Your task to perform on an android device: What is the recent news? Image 0: 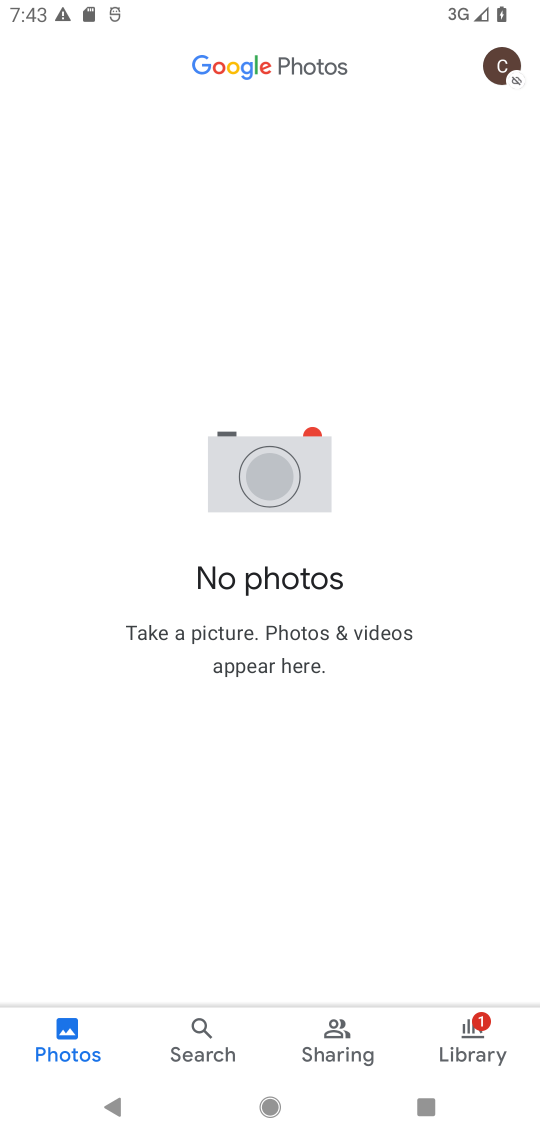
Step 0: press home button
Your task to perform on an android device: What is the recent news? Image 1: 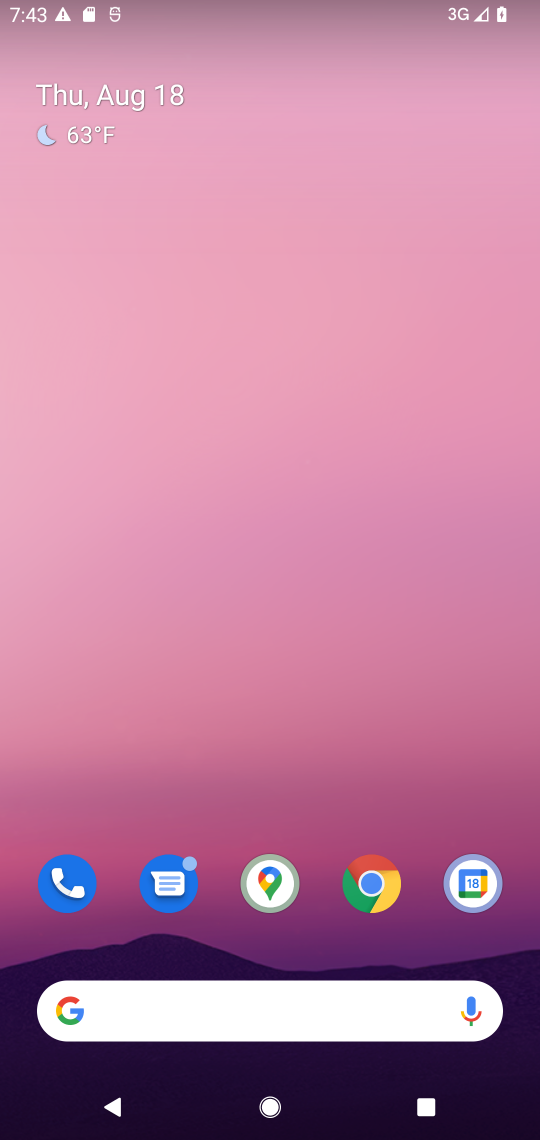
Step 1: click (220, 998)
Your task to perform on an android device: What is the recent news? Image 2: 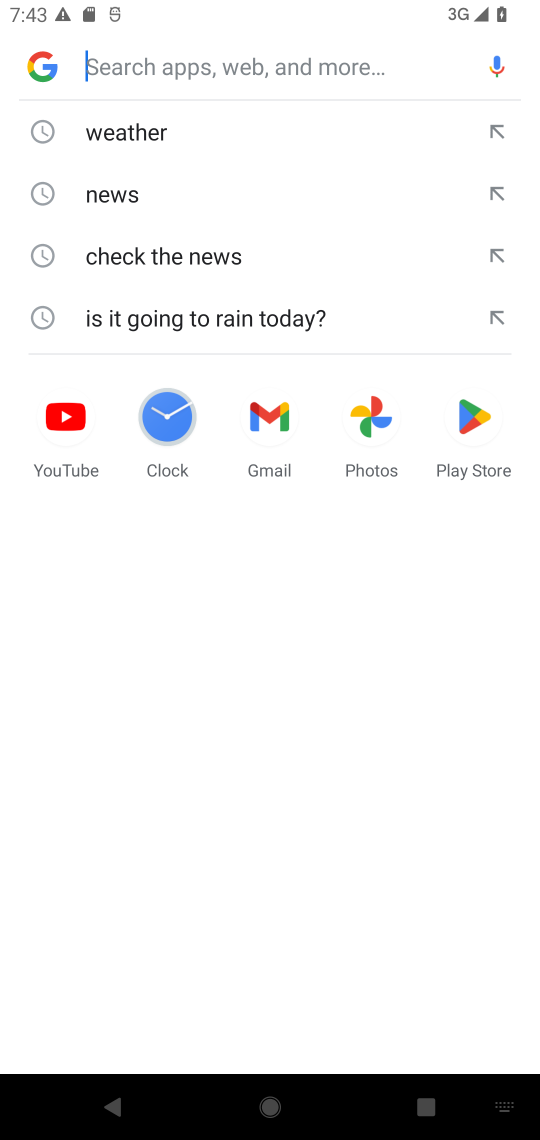
Step 2: type "What is the recent news?"
Your task to perform on an android device: What is the recent news? Image 3: 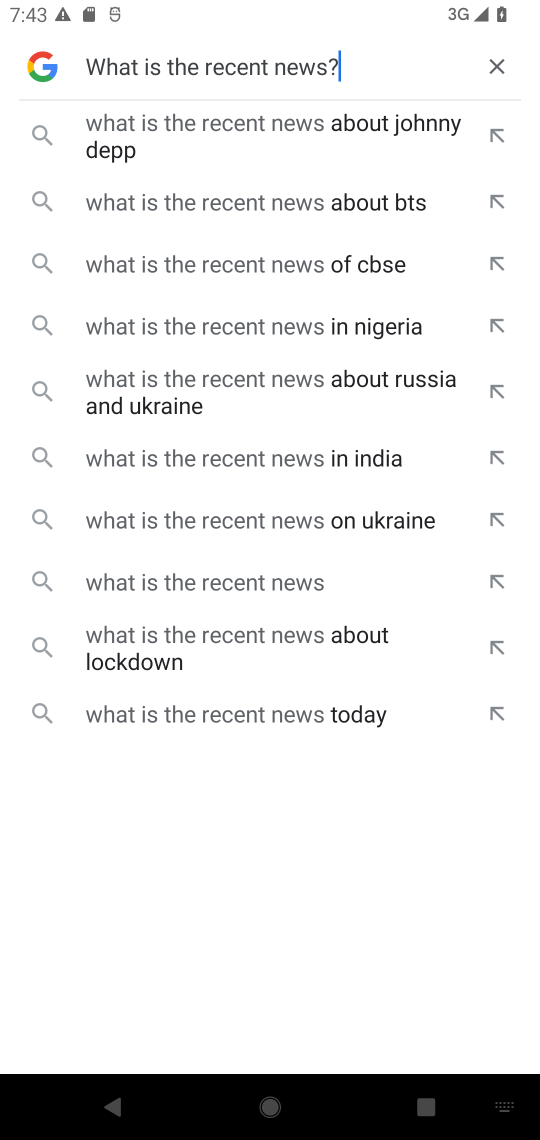
Step 3: type ""
Your task to perform on an android device: What is the recent news? Image 4: 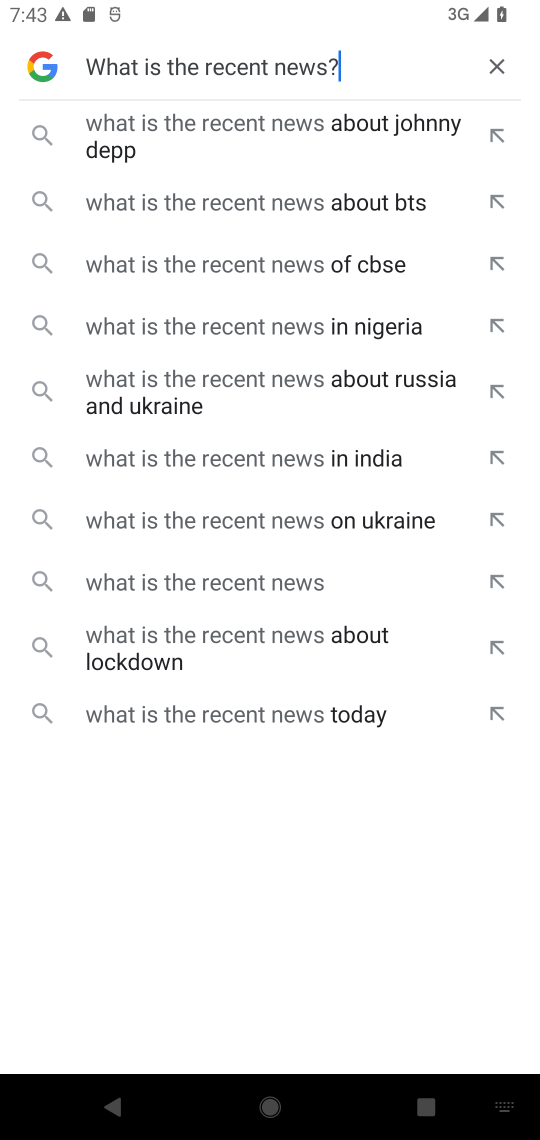
Step 4: type ""
Your task to perform on an android device: What is the recent news? Image 5: 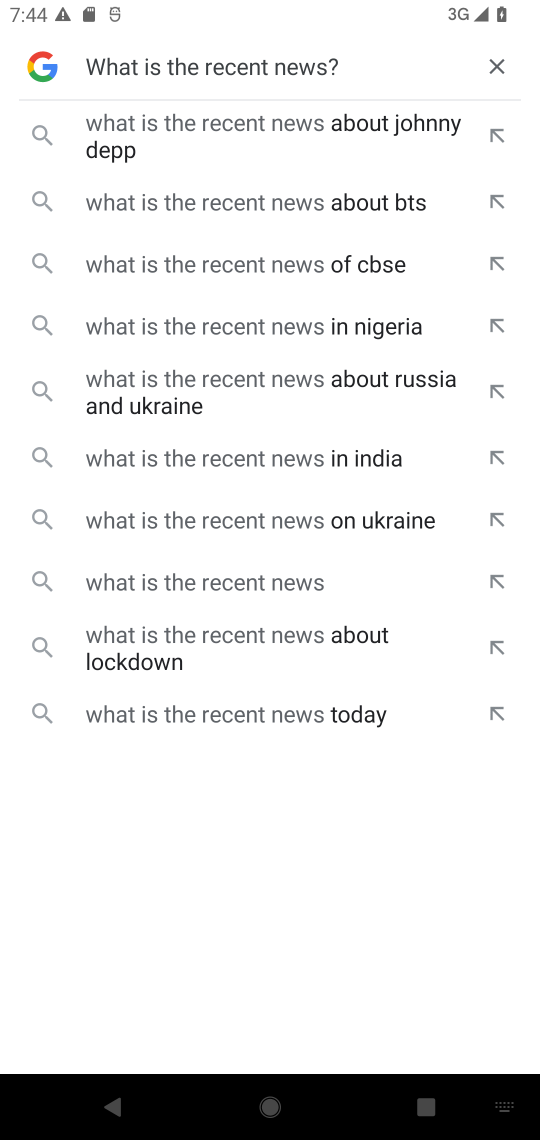
Step 5: task complete